Your task to perform on an android device: stop showing notifications on the lock screen Image 0: 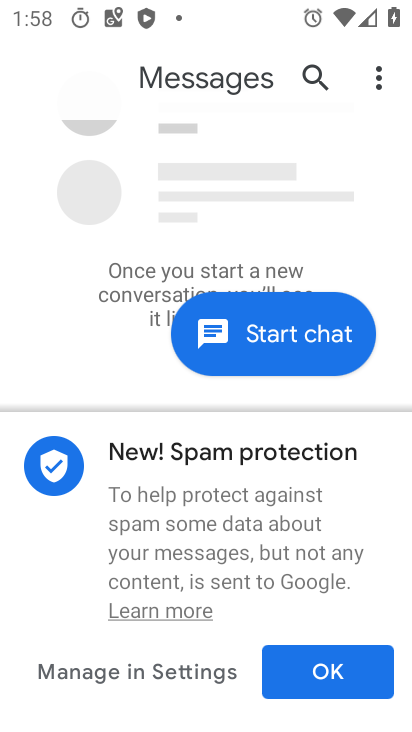
Step 0: press back button
Your task to perform on an android device: stop showing notifications on the lock screen Image 1: 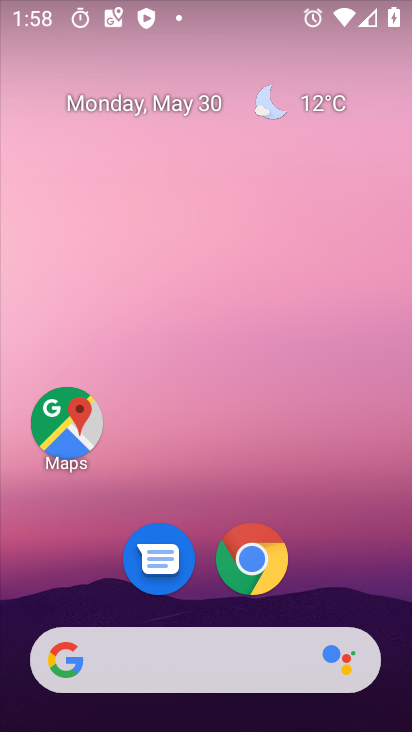
Step 1: drag from (195, 445) to (229, 84)
Your task to perform on an android device: stop showing notifications on the lock screen Image 2: 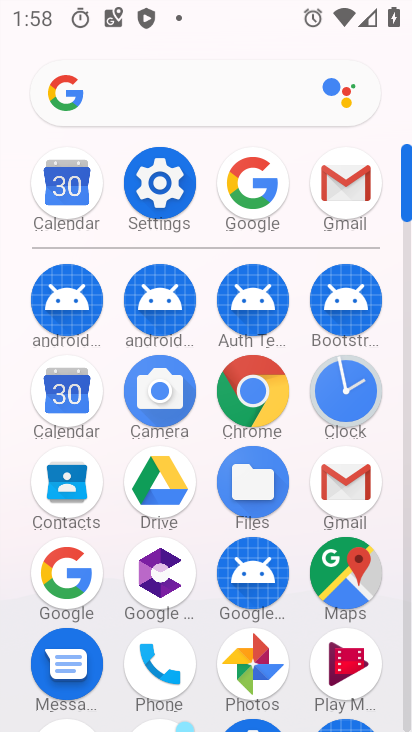
Step 2: click (149, 171)
Your task to perform on an android device: stop showing notifications on the lock screen Image 3: 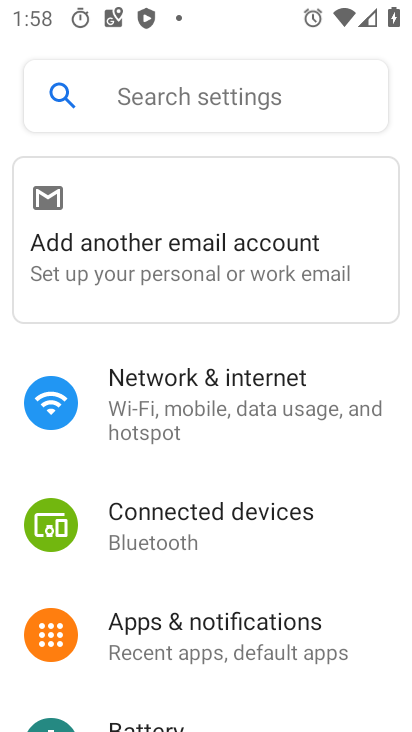
Step 3: click (185, 635)
Your task to perform on an android device: stop showing notifications on the lock screen Image 4: 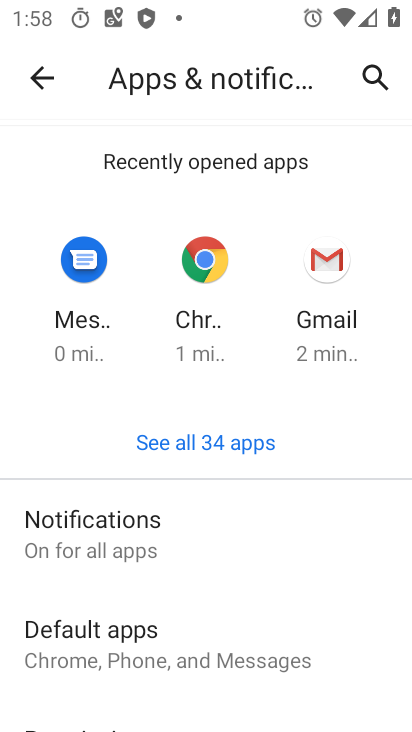
Step 4: click (153, 537)
Your task to perform on an android device: stop showing notifications on the lock screen Image 5: 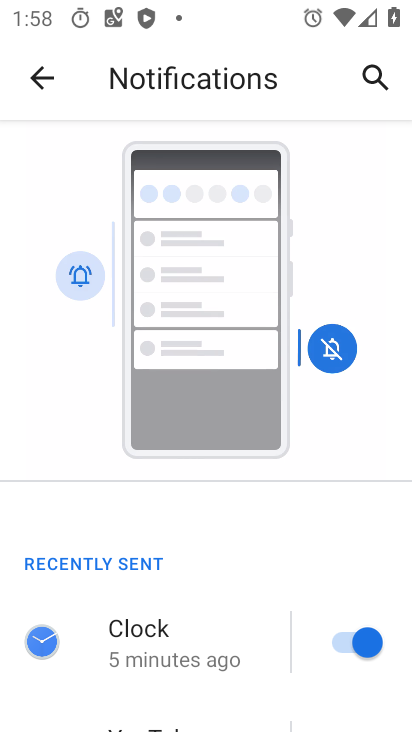
Step 5: drag from (153, 671) to (285, 100)
Your task to perform on an android device: stop showing notifications on the lock screen Image 6: 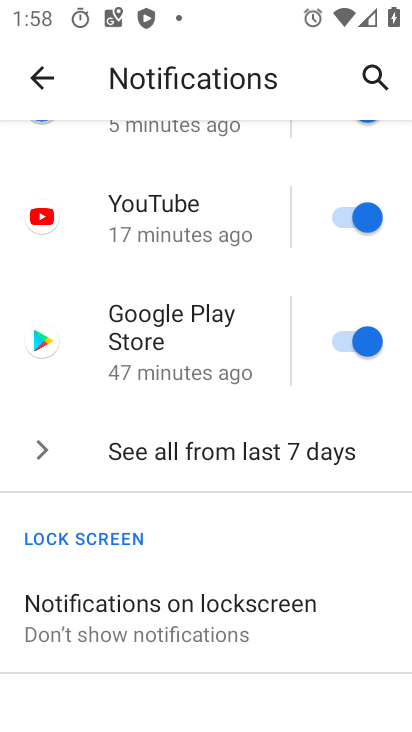
Step 6: drag from (181, 657) to (270, 273)
Your task to perform on an android device: stop showing notifications on the lock screen Image 7: 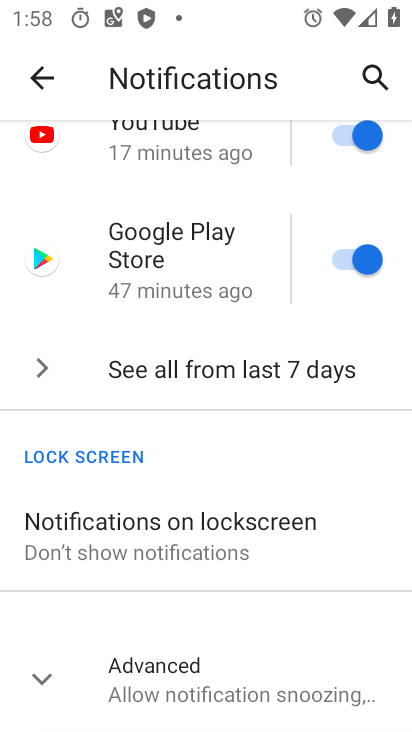
Step 7: click (115, 518)
Your task to perform on an android device: stop showing notifications on the lock screen Image 8: 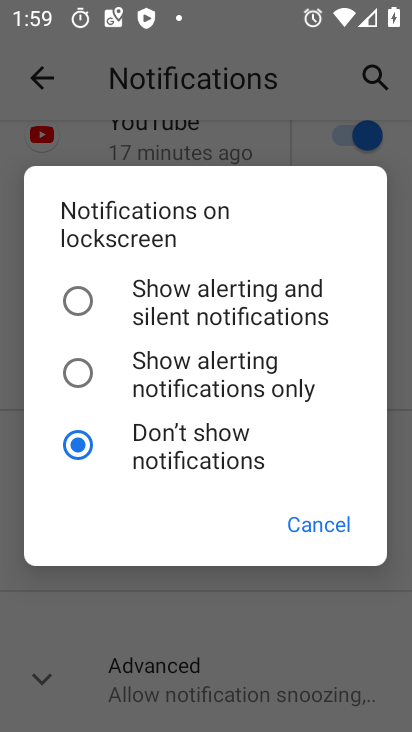
Step 8: task complete